Your task to perform on an android device: turn on bluetooth scan Image 0: 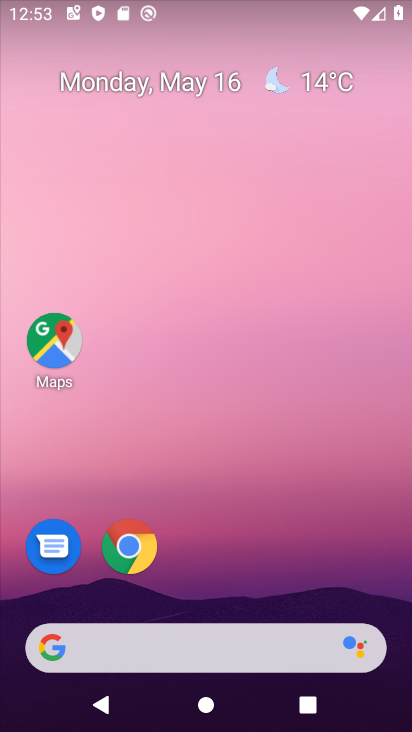
Step 0: drag from (265, 618) to (350, 158)
Your task to perform on an android device: turn on bluetooth scan Image 1: 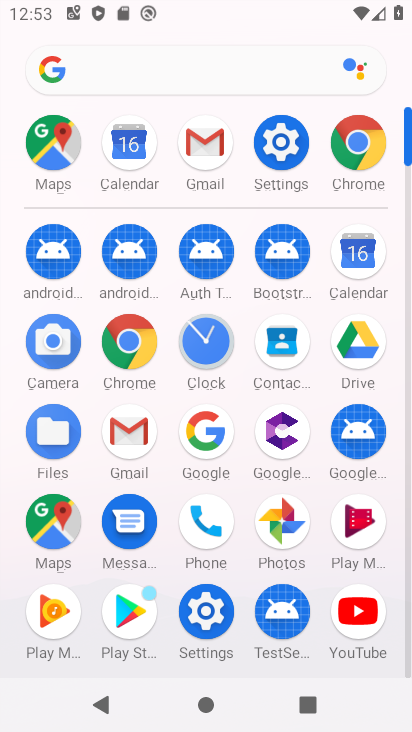
Step 1: click (193, 613)
Your task to perform on an android device: turn on bluetooth scan Image 2: 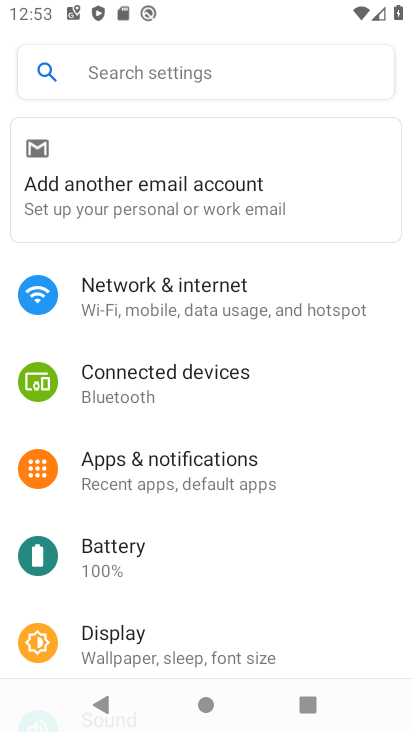
Step 2: click (196, 80)
Your task to perform on an android device: turn on bluetooth scan Image 3: 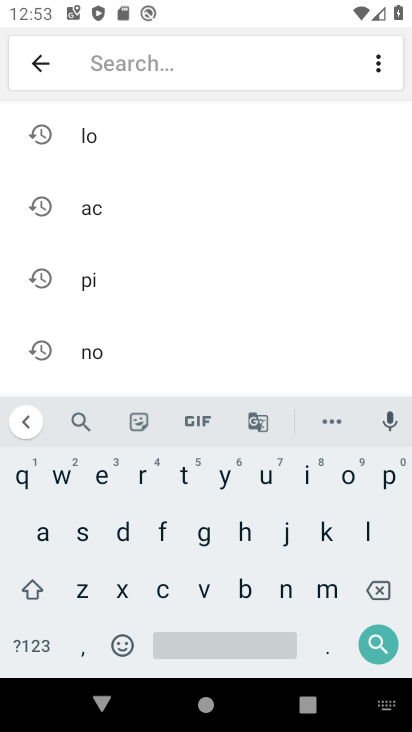
Step 3: click (132, 142)
Your task to perform on an android device: turn on bluetooth scan Image 4: 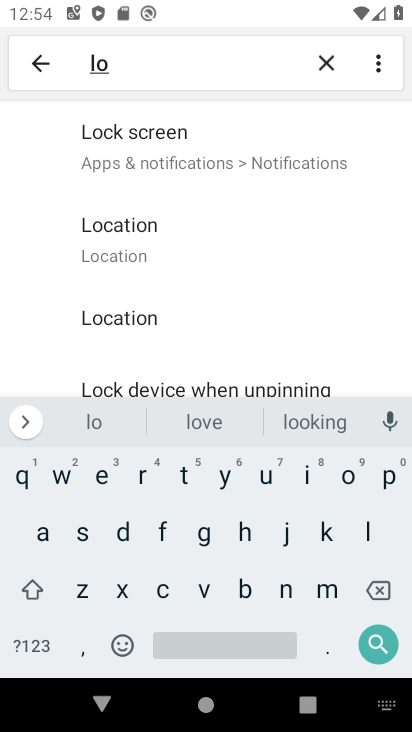
Step 4: click (123, 240)
Your task to perform on an android device: turn on bluetooth scan Image 5: 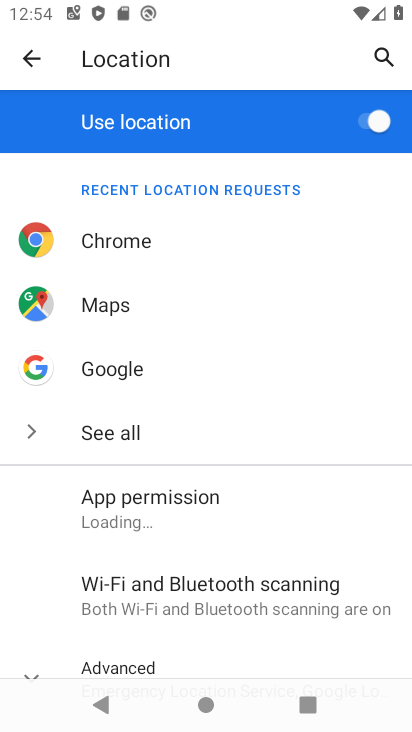
Step 5: click (214, 597)
Your task to perform on an android device: turn on bluetooth scan Image 6: 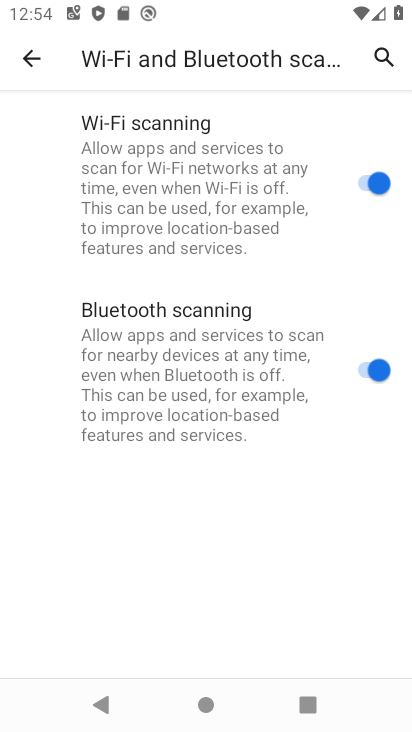
Step 6: task complete